Your task to perform on an android device: choose inbox layout in the gmail app Image 0: 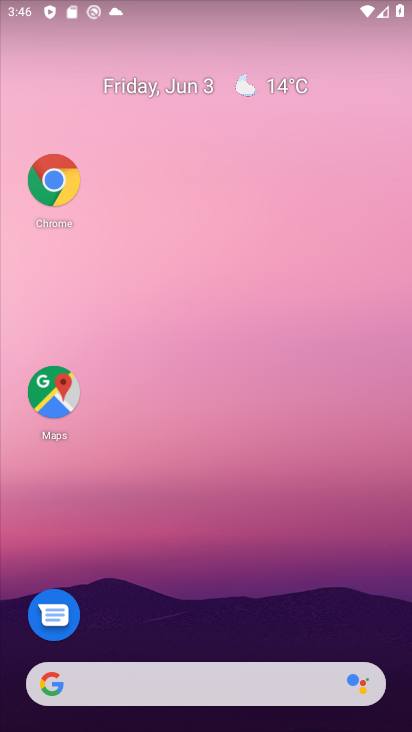
Step 0: drag from (133, 728) to (160, 93)
Your task to perform on an android device: choose inbox layout in the gmail app Image 1: 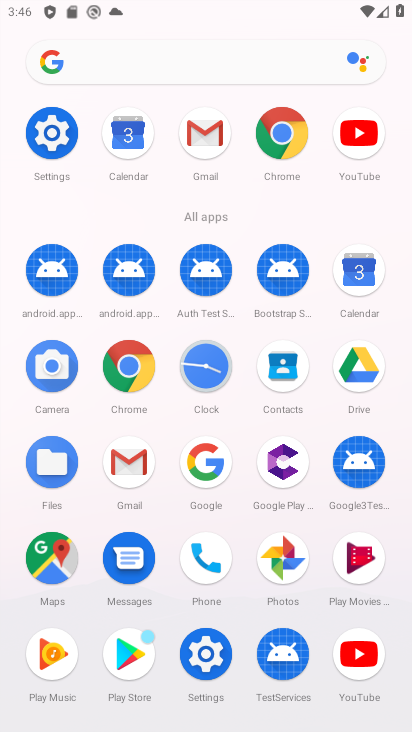
Step 1: click (124, 465)
Your task to perform on an android device: choose inbox layout in the gmail app Image 2: 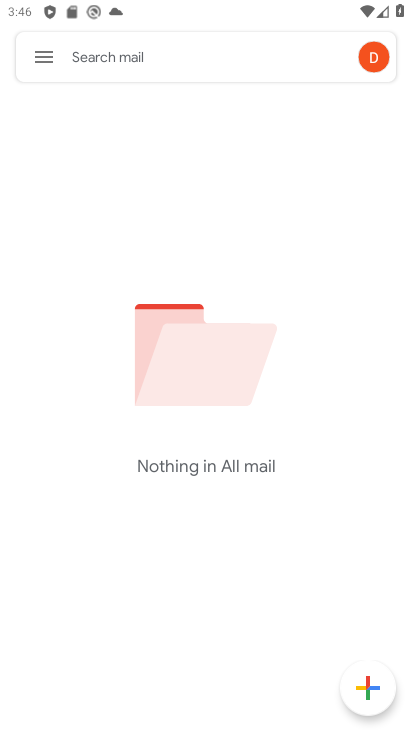
Step 2: click (46, 60)
Your task to perform on an android device: choose inbox layout in the gmail app Image 3: 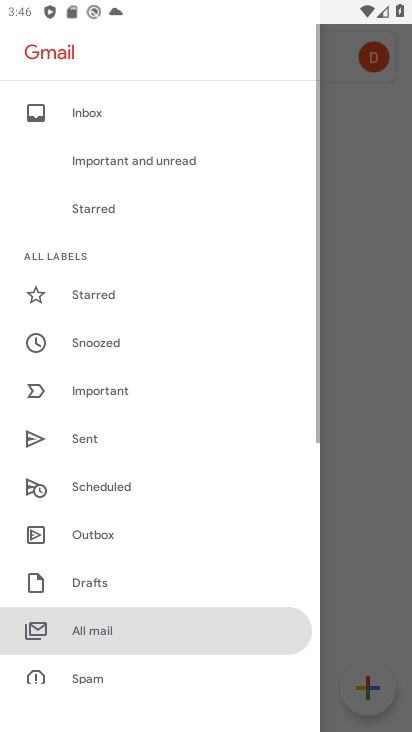
Step 3: drag from (198, 580) to (207, 176)
Your task to perform on an android device: choose inbox layout in the gmail app Image 4: 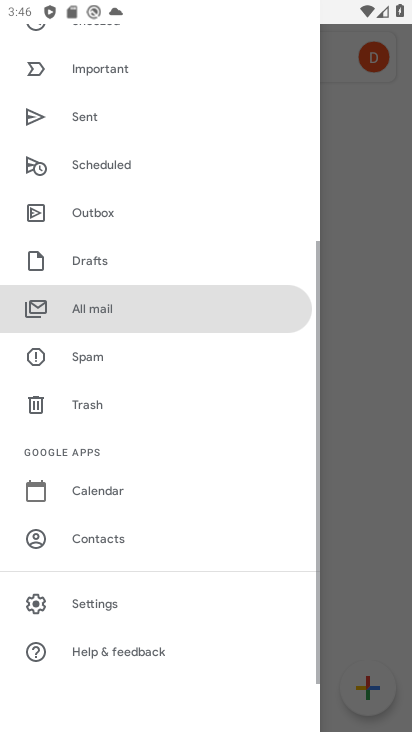
Step 4: click (112, 600)
Your task to perform on an android device: choose inbox layout in the gmail app Image 5: 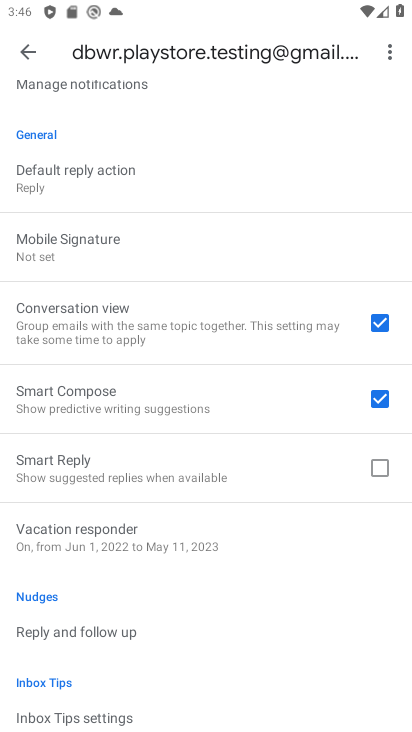
Step 5: drag from (289, 149) to (200, 693)
Your task to perform on an android device: choose inbox layout in the gmail app Image 6: 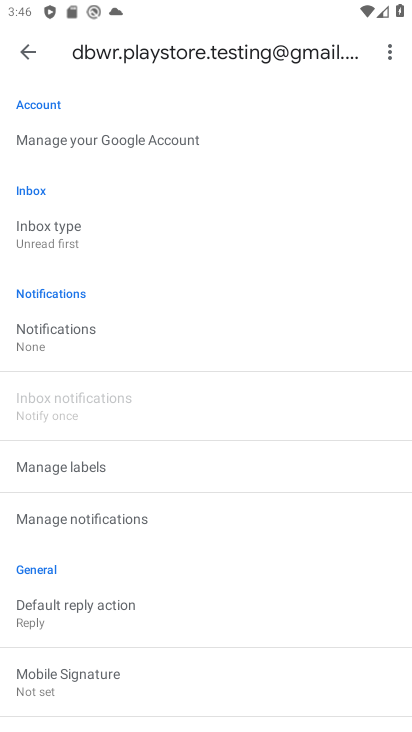
Step 6: click (60, 242)
Your task to perform on an android device: choose inbox layout in the gmail app Image 7: 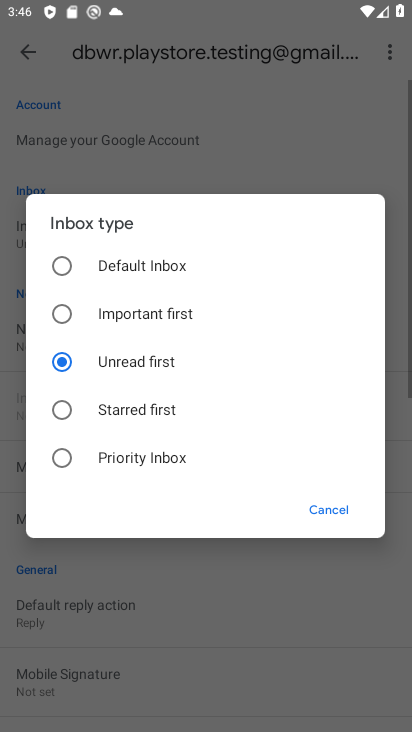
Step 7: click (114, 275)
Your task to perform on an android device: choose inbox layout in the gmail app Image 8: 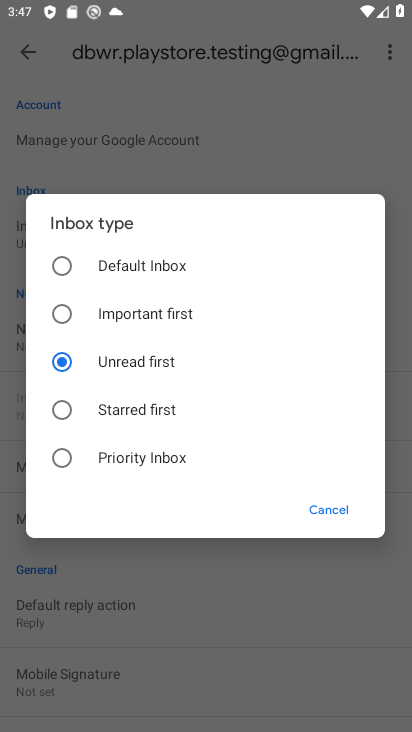
Step 8: click (175, 280)
Your task to perform on an android device: choose inbox layout in the gmail app Image 9: 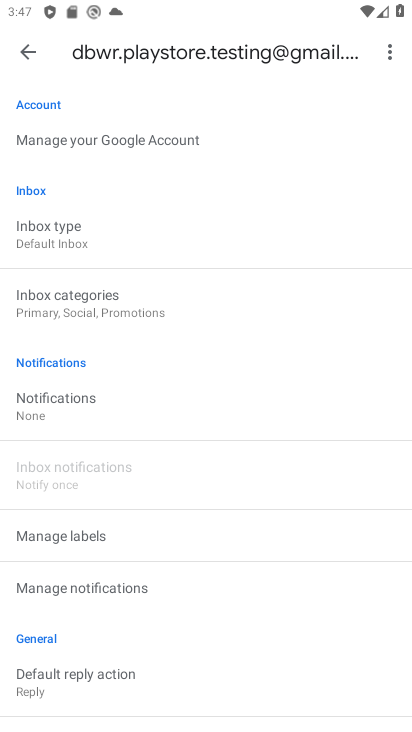
Step 9: task complete